Your task to perform on an android device: Go to sound settings Image 0: 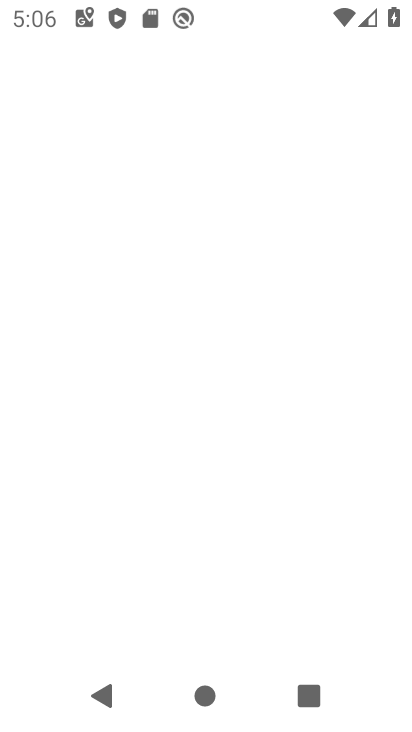
Step 0: press home button
Your task to perform on an android device: Go to sound settings Image 1: 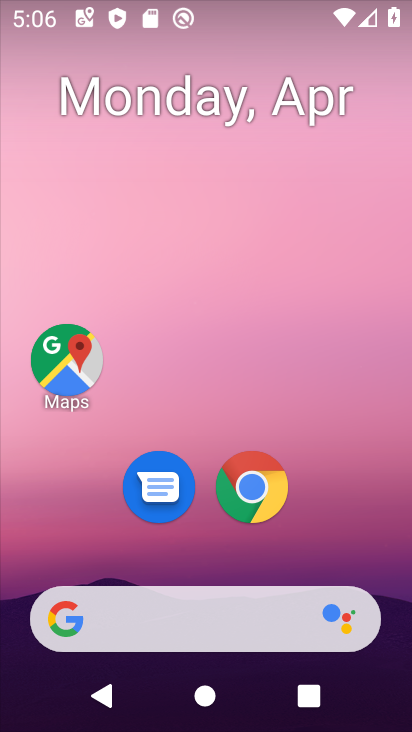
Step 1: drag from (361, 563) to (304, 166)
Your task to perform on an android device: Go to sound settings Image 2: 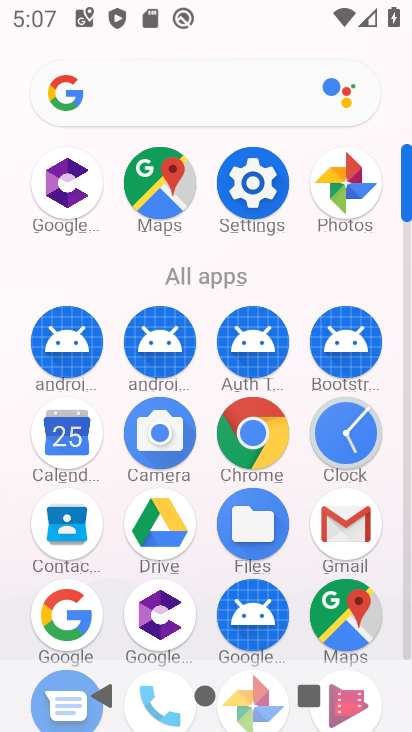
Step 2: click (259, 185)
Your task to perform on an android device: Go to sound settings Image 3: 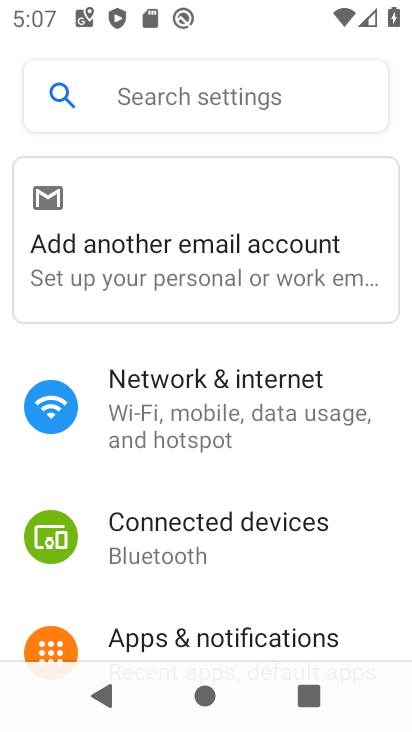
Step 3: drag from (304, 587) to (243, 190)
Your task to perform on an android device: Go to sound settings Image 4: 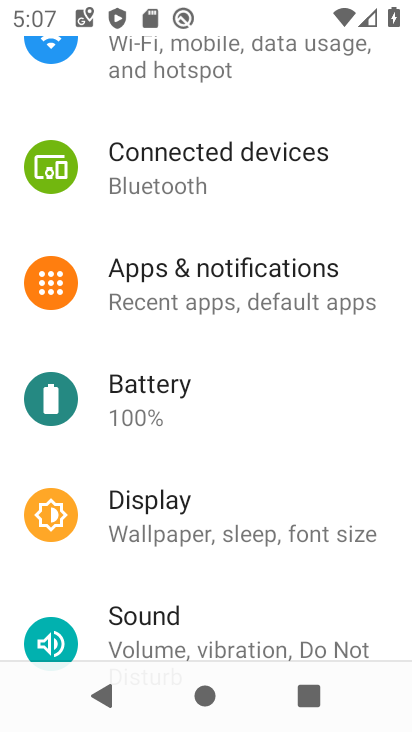
Step 4: click (257, 607)
Your task to perform on an android device: Go to sound settings Image 5: 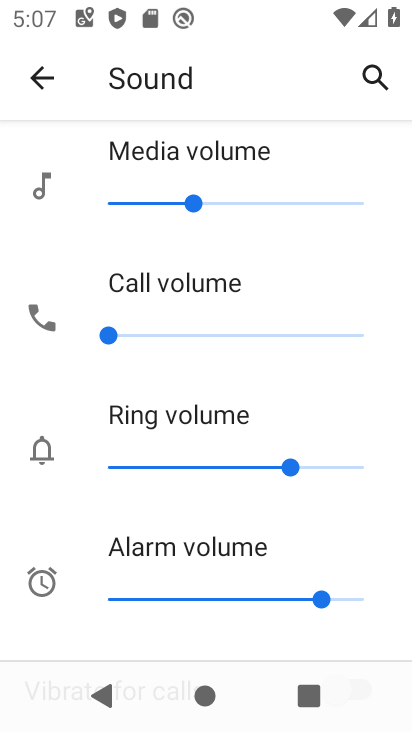
Step 5: task complete